Your task to perform on an android device: Search for macbook pro 15 inch on costco.com, select the first entry, and add it to the cart. Image 0: 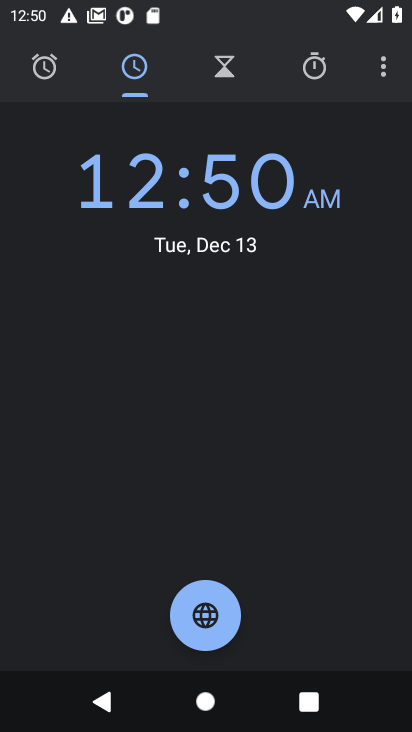
Step 0: press home button
Your task to perform on an android device: Search for macbook pro 15 inch on costco.com, select the first entry, and add it to the cart. Image 1: 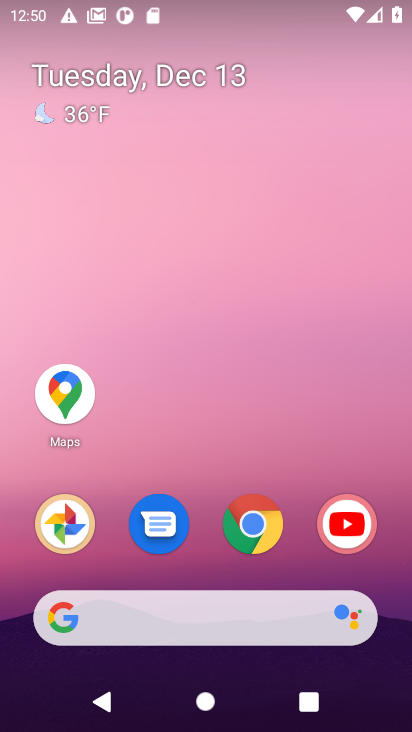
Step 1: click (252, 526)
Your task to perform on an android device: Search for macbook pro 15 inch on costco.com, select the first entry, and add it to the cart. Image 2: 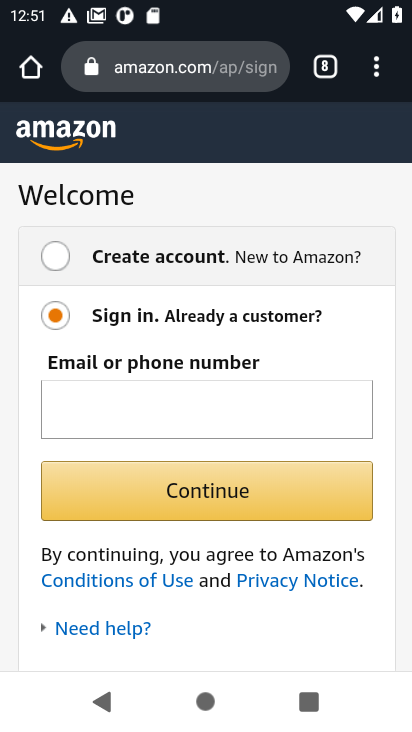
Step 2: click (156, 65)
Your task to perform on an android device: Search for macbook pro 15 inch on costco.com, select the first entry, and add it to the cart. Image 3: 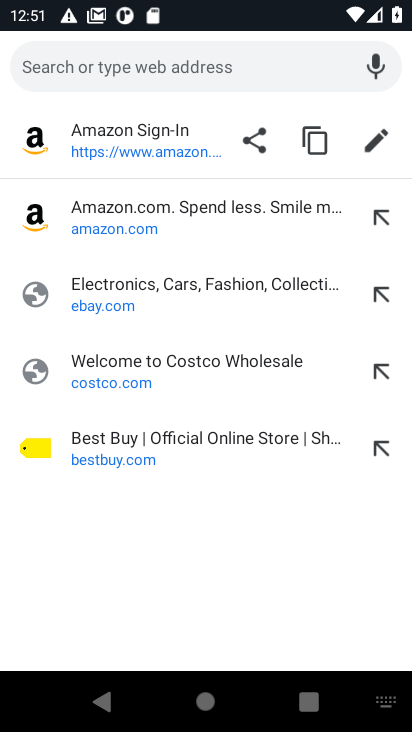
Step 3: click (95, 378)
Your task to perform on an android device: Search for macbook pro 15 inch on costco.com, select the first entry, and add it to the cart. Image 4: 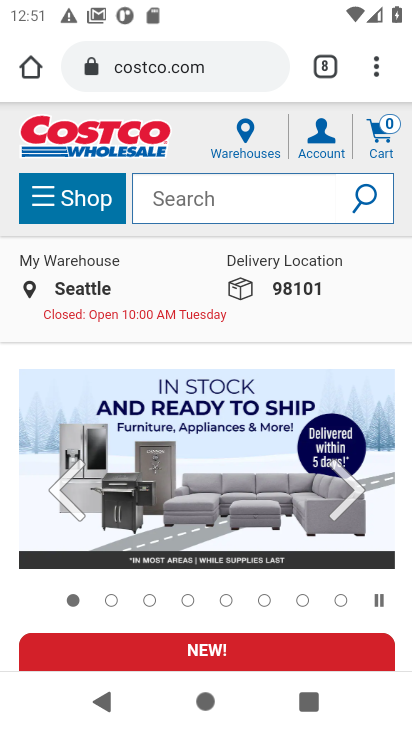
Step 4: click (189, 201)
Your task to perform on an android device: Search for macbook pro 15 inch on costco.com, select the first entry, and add it to the cart. Image 5: 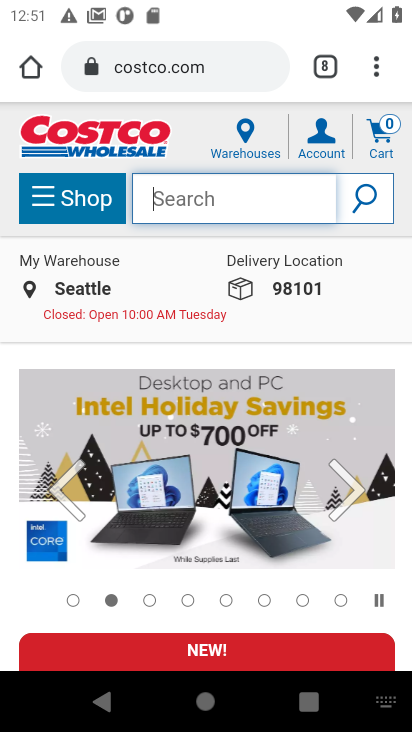
Step 5: type "macbook pro 15 inch"
Your task to perform on an android device: Search for macbook pro 15 inch on costco.com, select the first entry, and add it to the cart. Image 6: 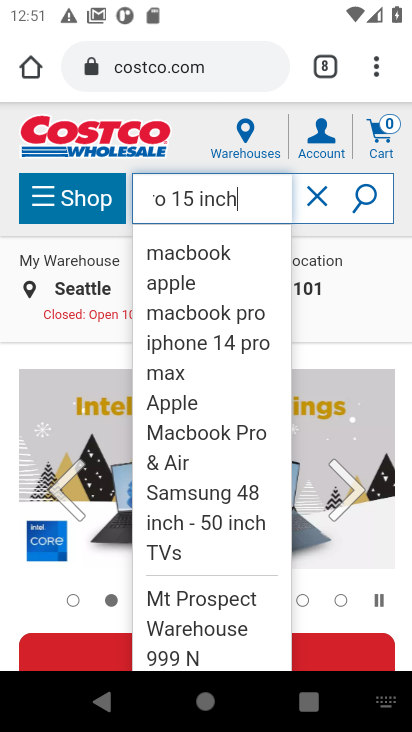
Step 6: click (360, 203)
Your task to perform on an android device: Search for macbook pro 15 inch on costco.com, select the first entry, and add it to the cart. Image 7: 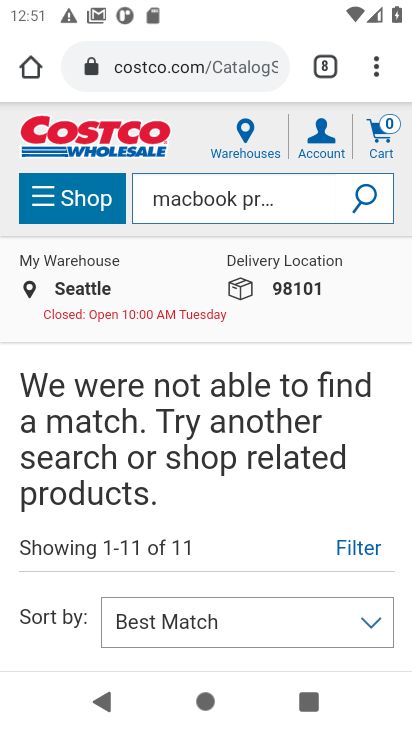
Step 7: task complete